Your task to perform on an android device: turn off notifications in google photos Image 0: 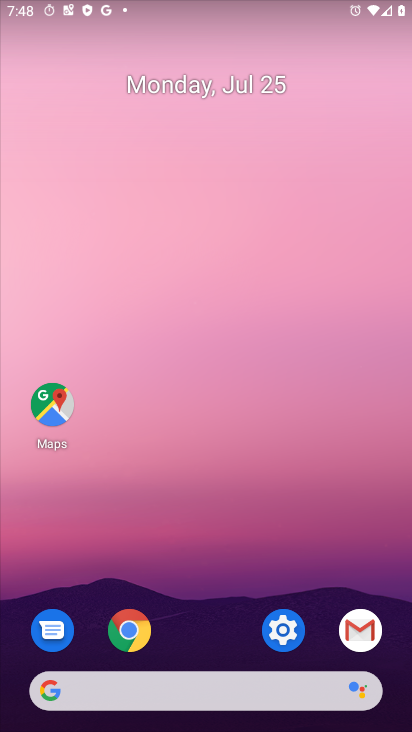
Step 0: drag from (250, 709) to (95, 121)
Your task to perform on an android device: turn off notifications in google photos Image 1: 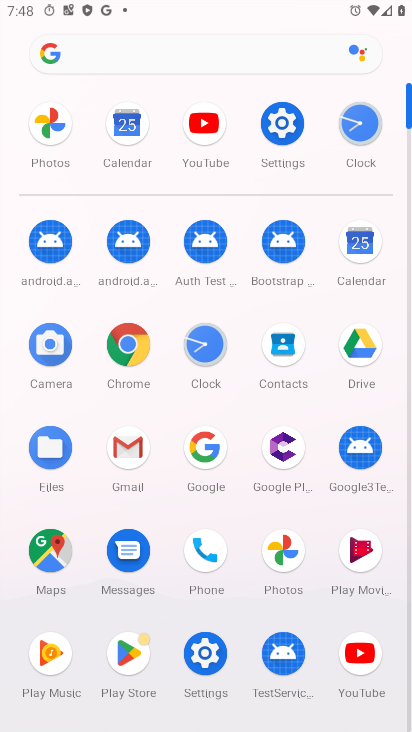
Step 1: click (288, 545)
Your task to perform on an android device: turn off notifications in google photos Image 2: 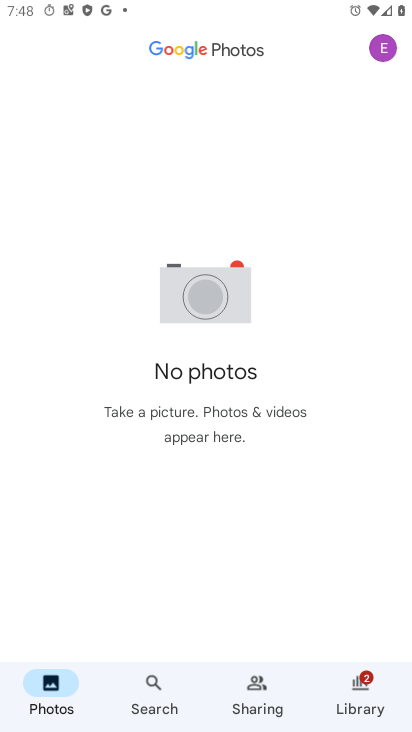
Step 2: click (396, 45)
Your task to perform on an android device: turn off notifications in google photos Image 3: 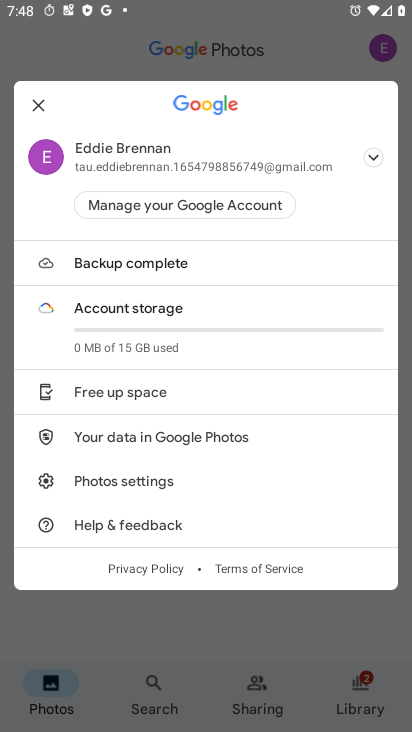
Step 3: click (141, 474)
Your task to perform on an android device: turn off notifications in google photos Image 4: 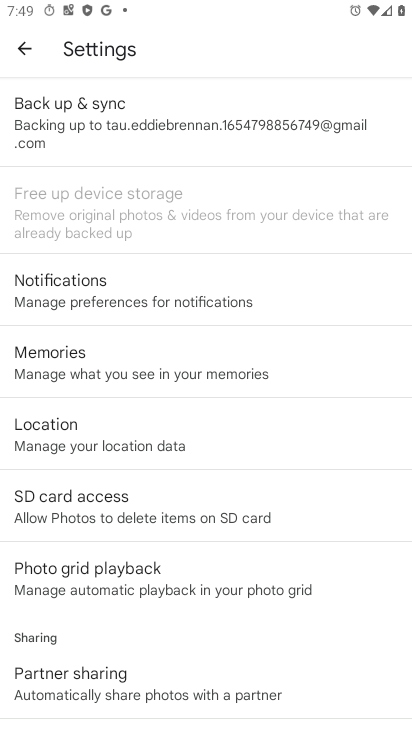
Step 4: click (113, 305)
Your task to perform on an android device: turn off notifications in google photos Image 5: 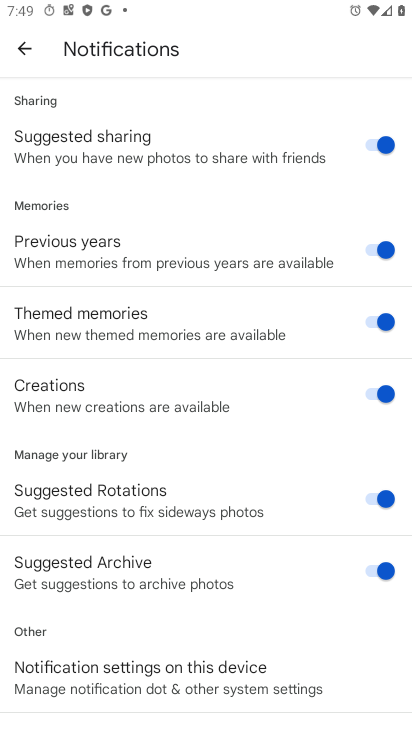
Step 5: drag from (158, 571) to (225, 314)
Your task to perform on an android device: turn off notifications in google photos Image 6: 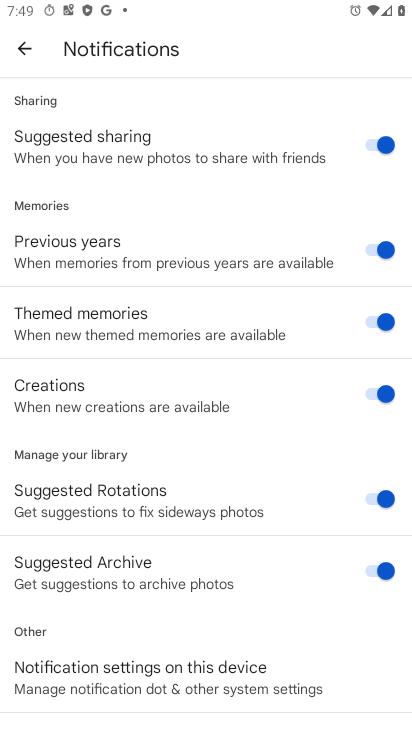
Step 6: click (150, 666)
Your task to perform on an android device: turn off notifications in google photos Image 7: 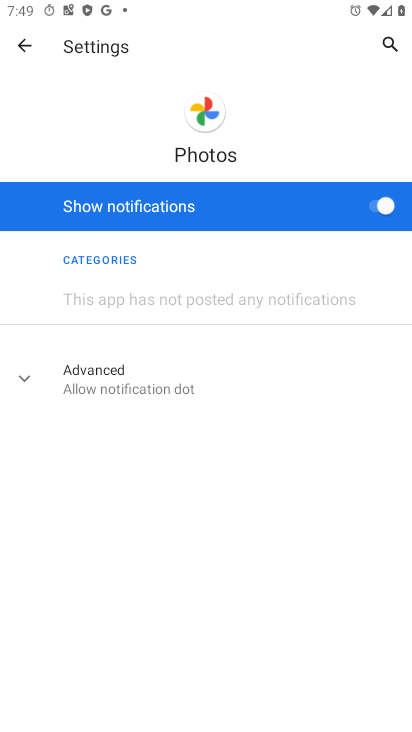
Step 7: click (378, 214)
Your task to perform on an android device: turn off notifications in google photos Image 8: 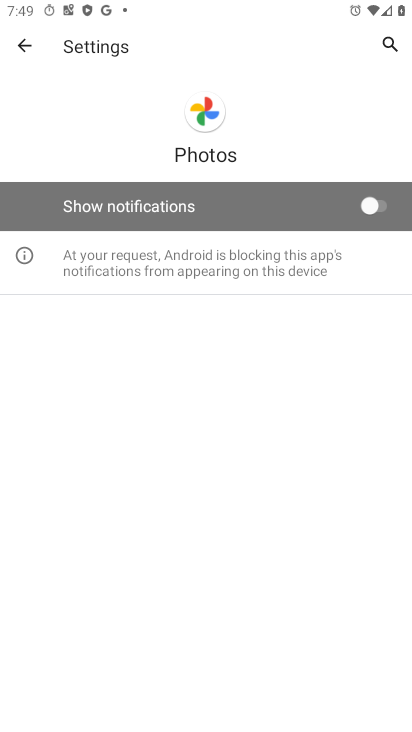
Step 8: task complete